Your task to perform on an android device: turn on improve location accuracy Image 0: 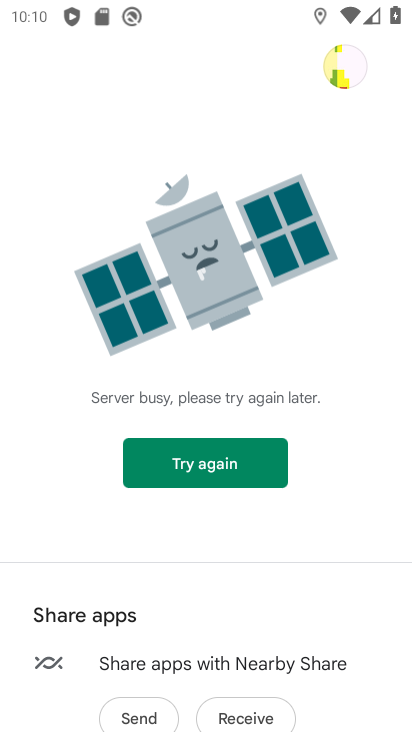
Step 0: press home button
Your task to perform on an android device: turn on improve location accuracy Image 1: 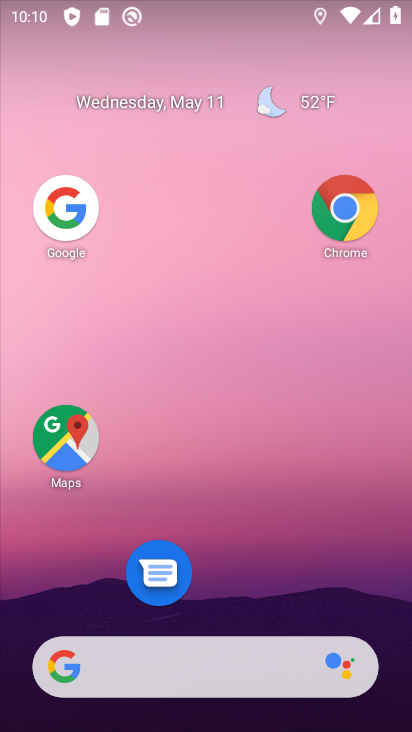
Step 1: drag from (218, 619) to (131, 62)
Your task to perform on an android device: turn on improve location accuracy Image 2: 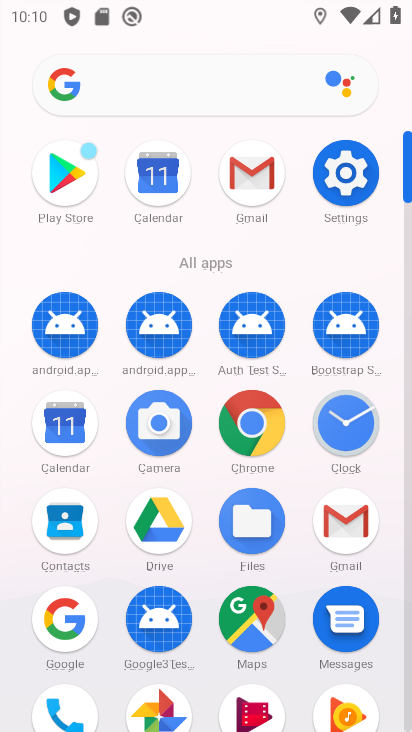
Step 2: click (336, 173)
Your task to perform on an android device: turn on improve location accuracy Image 3: 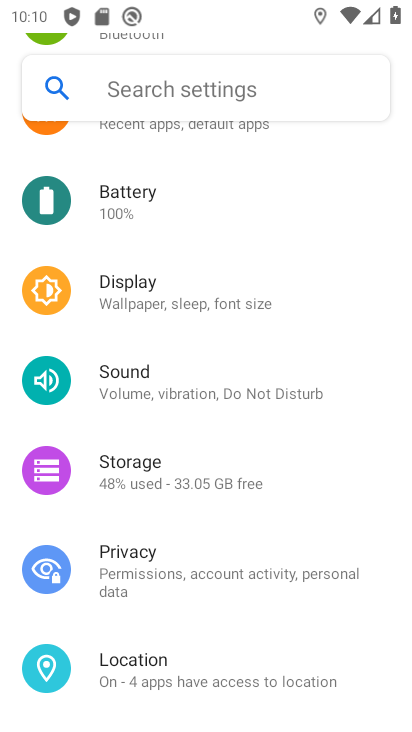
Step 3: click (202, 654)
Your task to perform on an android device: turn on improve location accuracy Image 4: 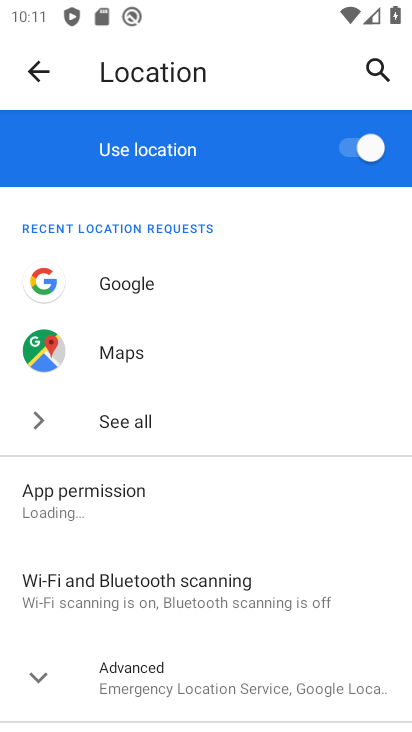
Step 4: click (182, 660)
Your task to perform on an android device: turn on improve location accuracy Image 5: 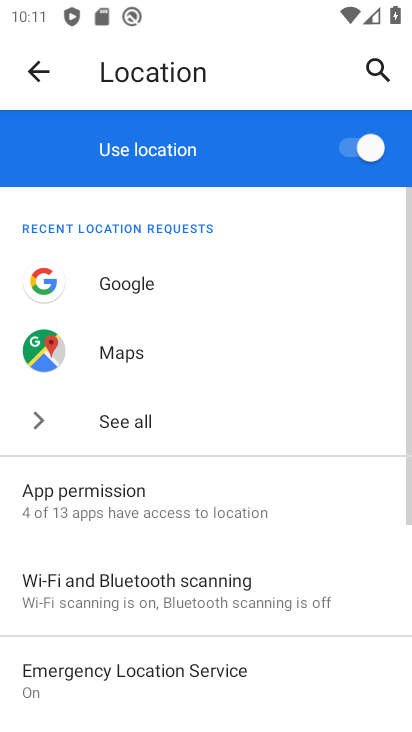
Step 5: drag from (310, 681) to (228, 153)
Your task to perform on an android device: turn on improve location accuracy Image 6: 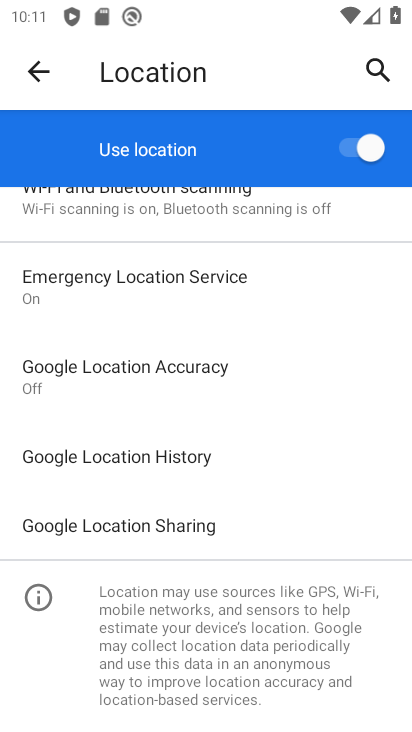
Step 6: click (184, 379)
Your task to perform on an android device: turn on improve location accuracy Image 7: 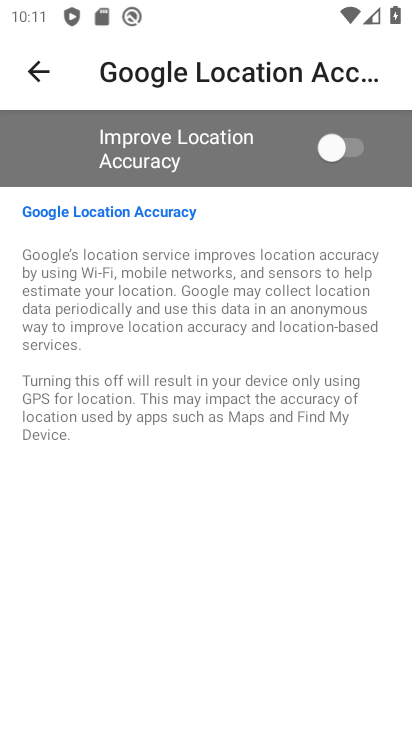
Step 7: click (356, 143)
Your task to perform on an android device: turn on improve location accuracy Image 8: 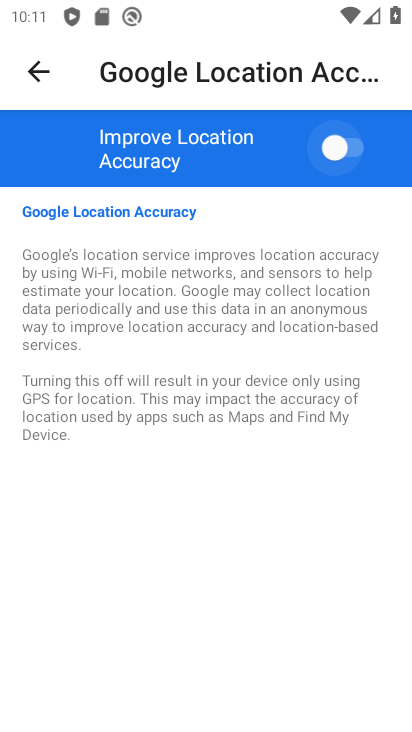
Step 8: click (356, 143)
Your task to perform on an android device: turn on improve location accuracy Image 9: 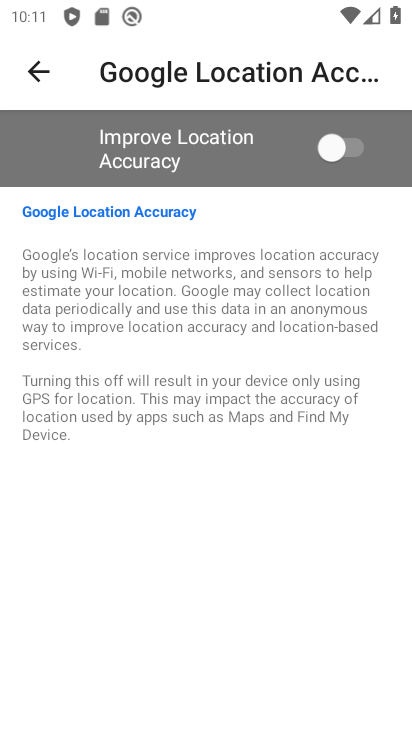
Step 9: task complete